Your task to perform on an android device: make emails show in primary in the gmail app Image 0: 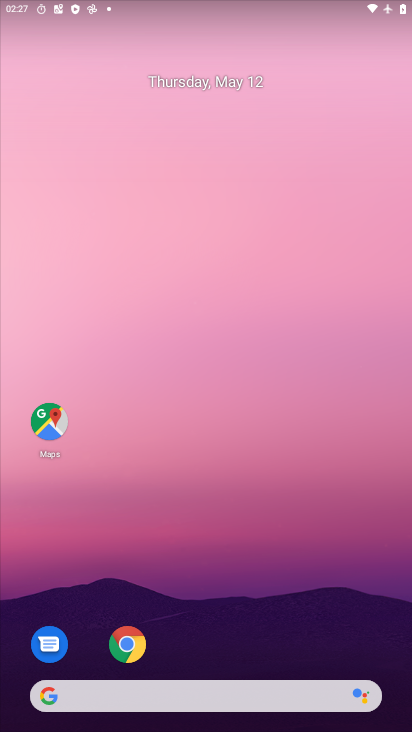
Step 0: drag from (260, 520) to (214, 100)
Your task to perform on an android device: make emails show in primary in the gmail app Image 1: 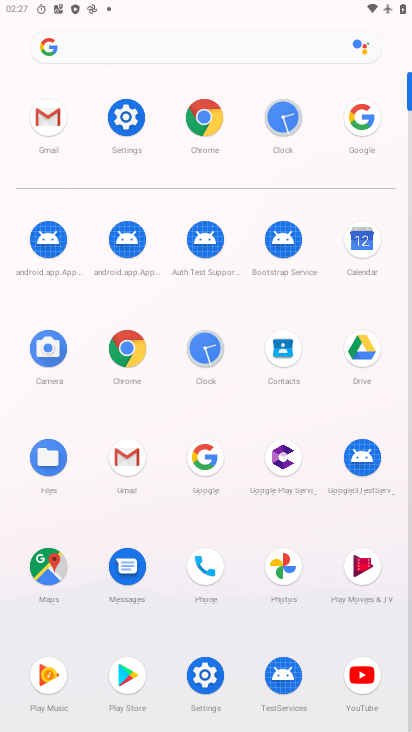
Step 1: click (143, 456)
Your task to perform on an android device: make emails show in primary in the gmail app Image 2: 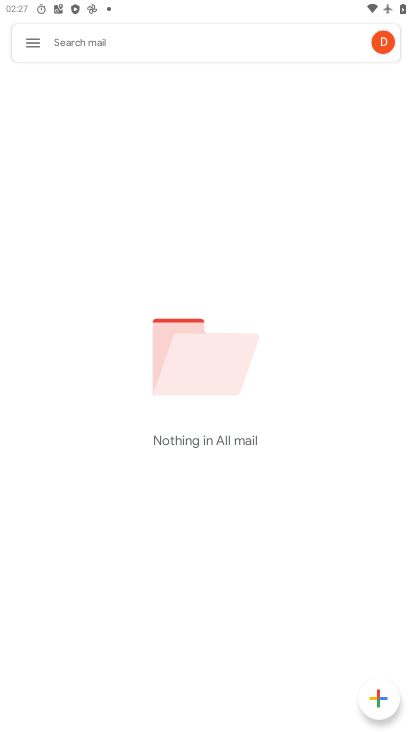
Step 2: click (37, 49)
Your task to perform on an android device: make emails show in primary in the gmail app Image 3: 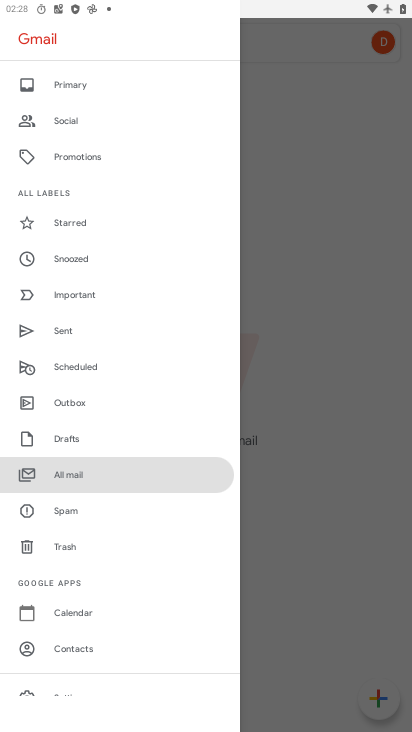
Step 3: click (74, 90)
Your task to perform on an android device: make emails show in primary in the gmail app Image 4: 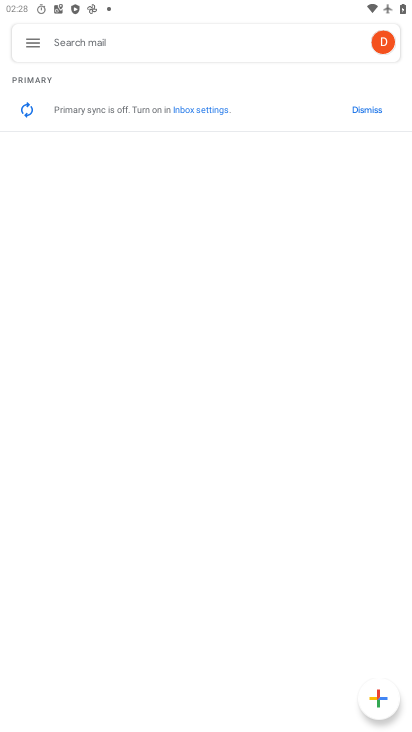
Step 4: task complete